Your task to perform on an android device: allow cookies in the chrome app Image 0: 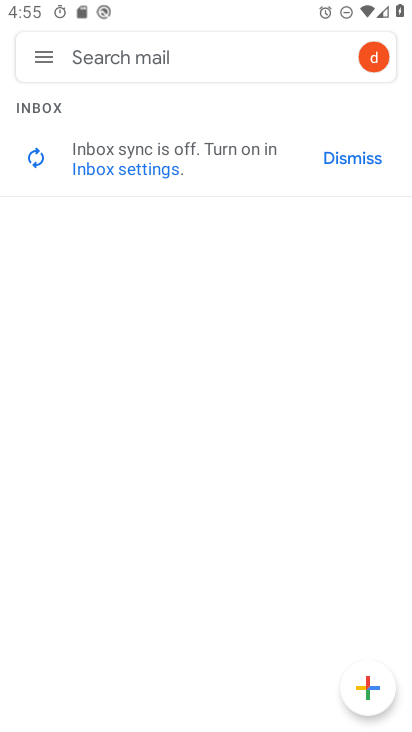
Step 0: press home button
Your task to perform on an android device: allow cookies in the chrome app Image 1: 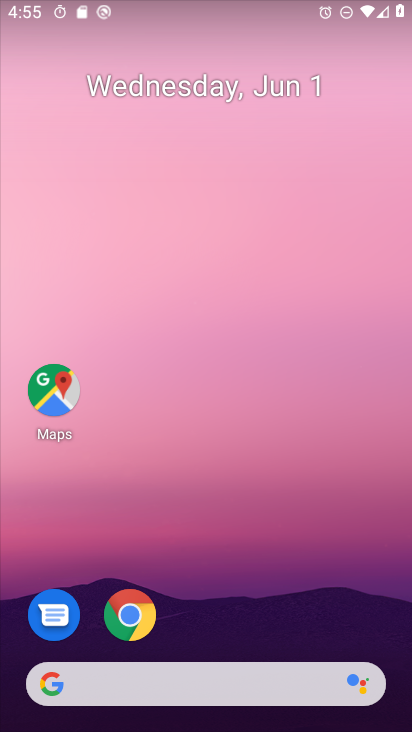
Step 1: drag from (275, 669) to (270, 29)
Your task to perform on an android device: allow cookies in the chrome app Image 2: 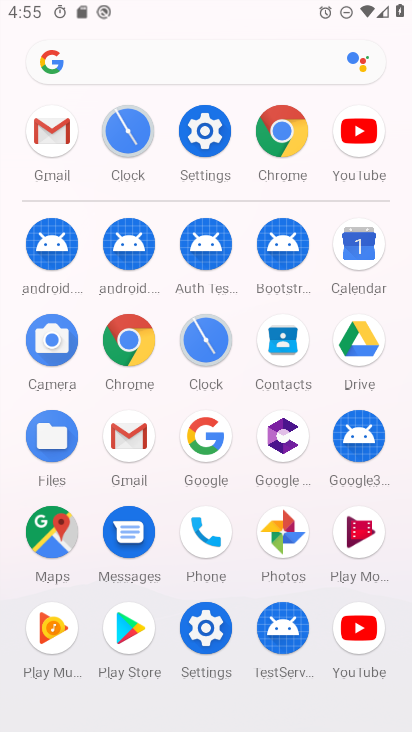
Step 2: click (145, 343)
Your task to perform on an android device: allow cookies in the chrome app Image 3: 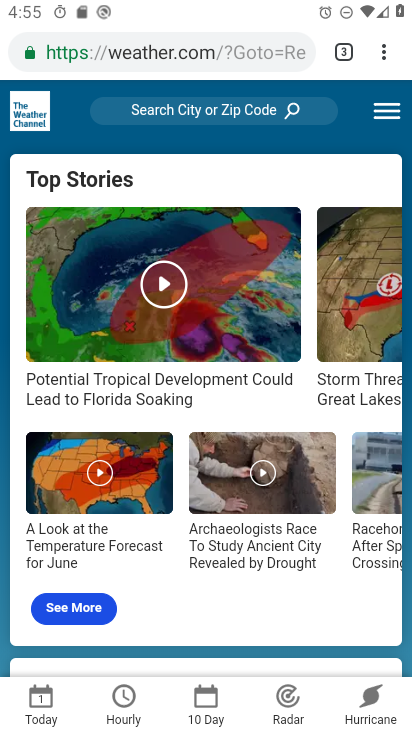
Step 3: drag from (377, 53) to (277, 297)
Your task to perform on an android device: allow cookies in the chrome app Image 4: 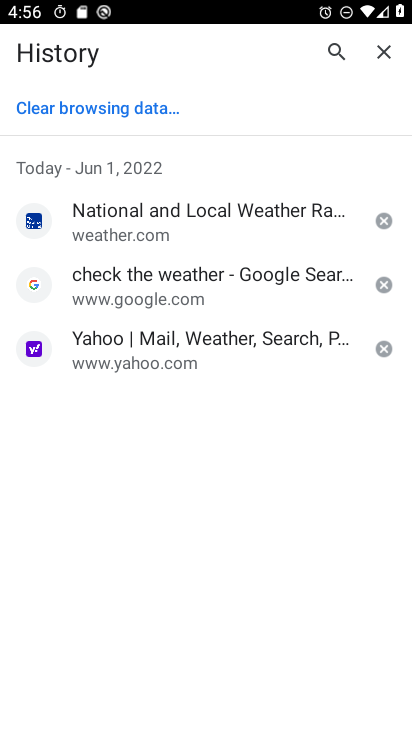
Step 4: press back button
Your task to perform on an android device: allow cookies in the chrome app Image 5: 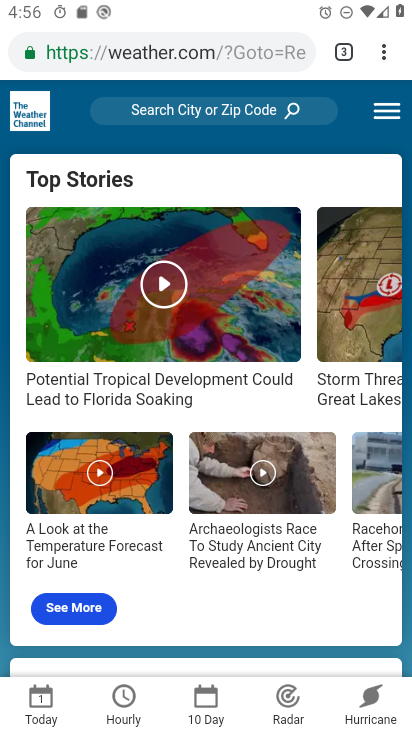
Step 5: drag from (381, 51) to (234, 641)
Your task to perform on an android device: allow cookies in the chrome app Image 6: 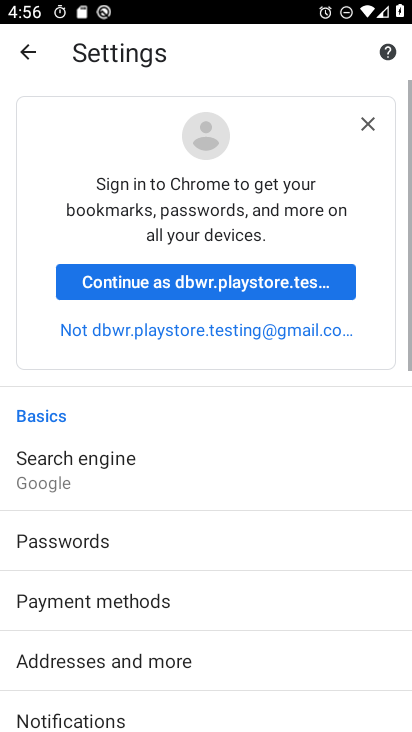
Step 6: drag from (262, 582) to (260, 103)
Your task to perform on an android device: allow cookies in the chrome app Image 7: 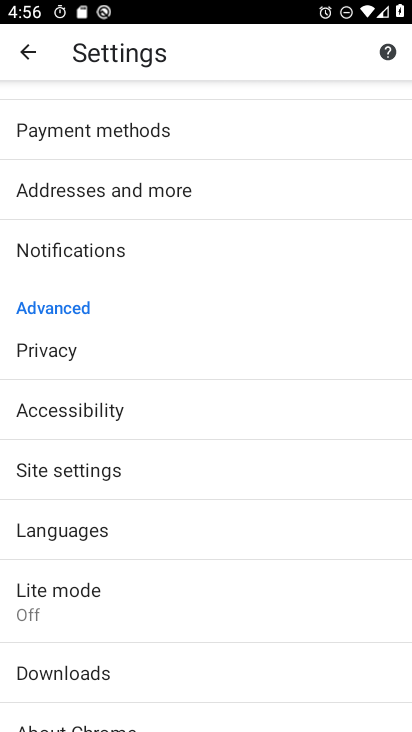
Step 7: click (109, 482)
Your task to perform on an android device: allow cookies in the chrome app Image 8: 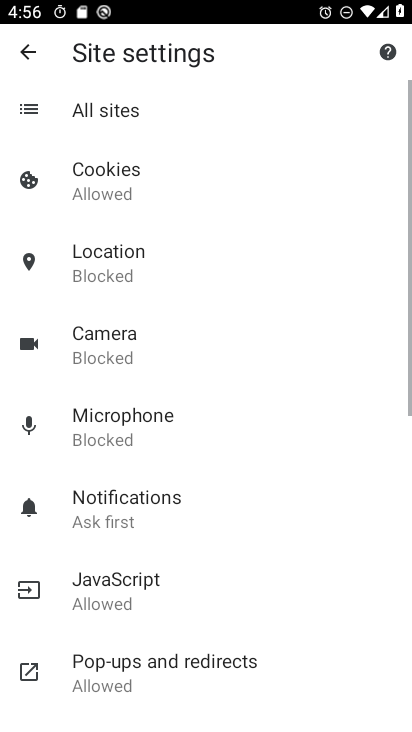
Step 8: click (139, 180)
Your task to perform on an android device: allow cookies in the chrome app Image 9: 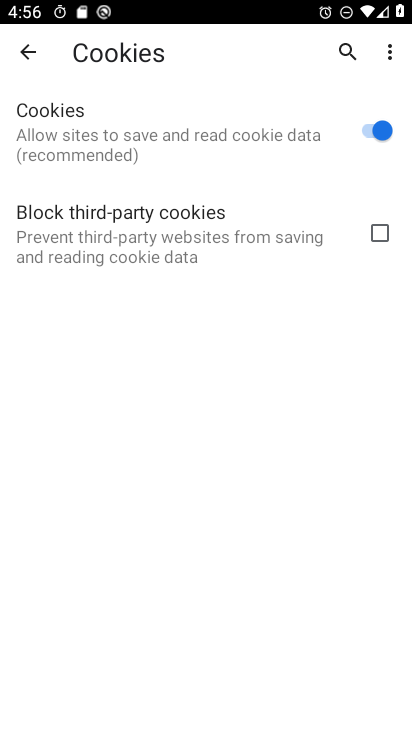
Step 9: task complete